Your task to perform on an android device: open app "Flipkart Online Shopping App" (install if not already installed) Image 0: 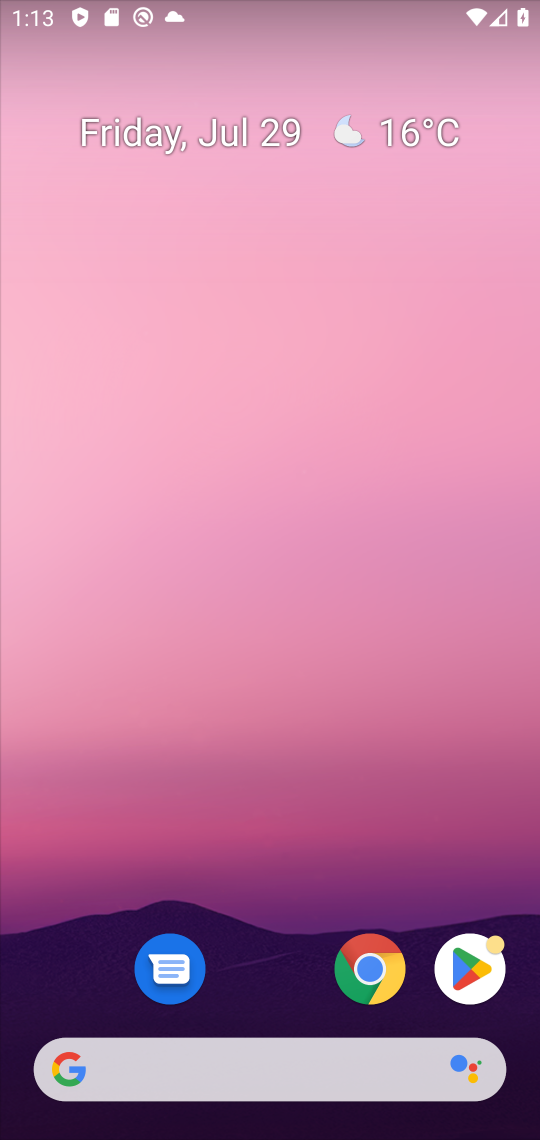
Step 0: press home button
Your task to perform on an android device: open app "Flipkart Online Shopping App" (install if not already installed) Image 1: 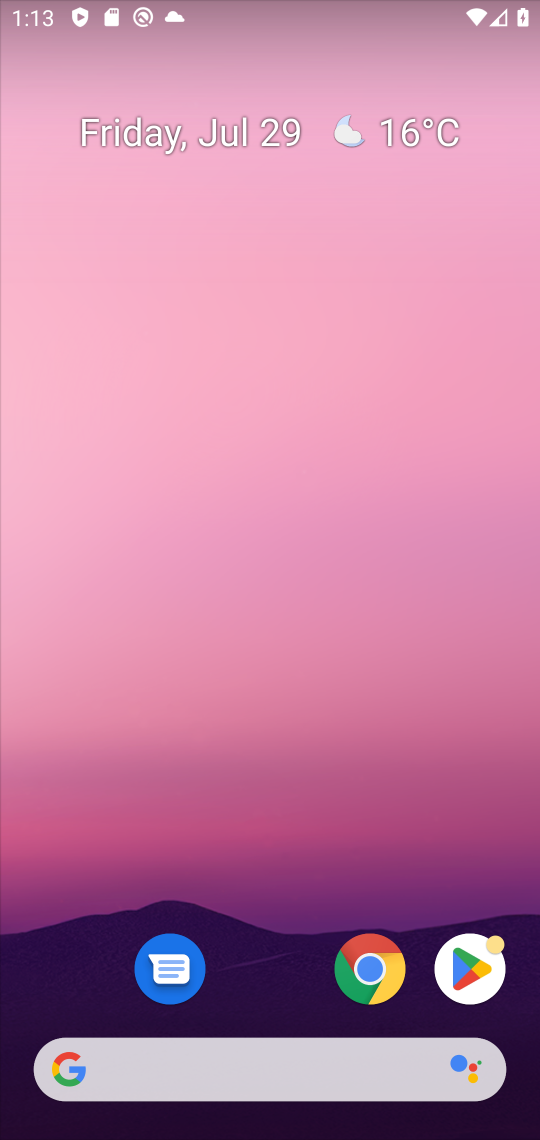
Step 1: click (495, 983)
Your task to perform on an android device: open app "Flipkart Online Shopping App" (install if not already installed) Image 2: 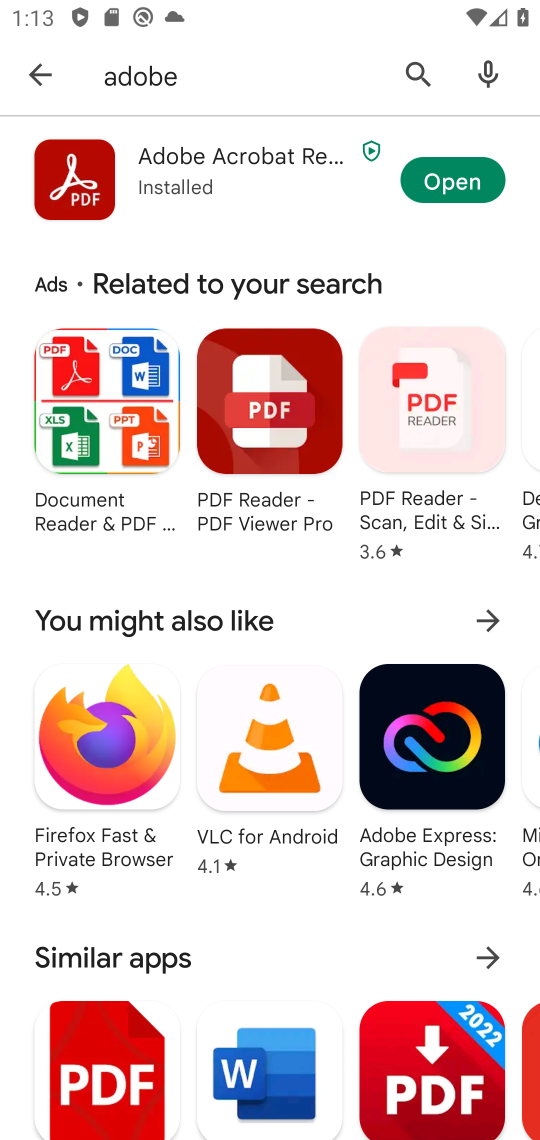
Step 2: click (406, 54)
Your task to perform on an android device: open app "Flipkart Online Shopping App" (install if not already installed) Image 3: 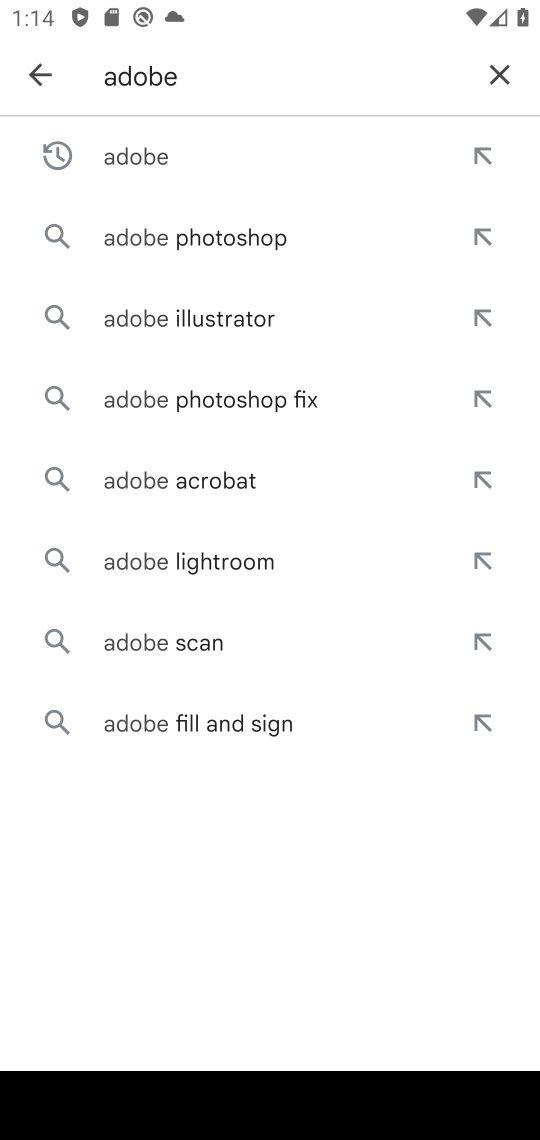
Step 3: click (495, 83)
Your task to perform on an android device: open app "Flipkart Online Shopping App" (install if not already installed) Image 4: 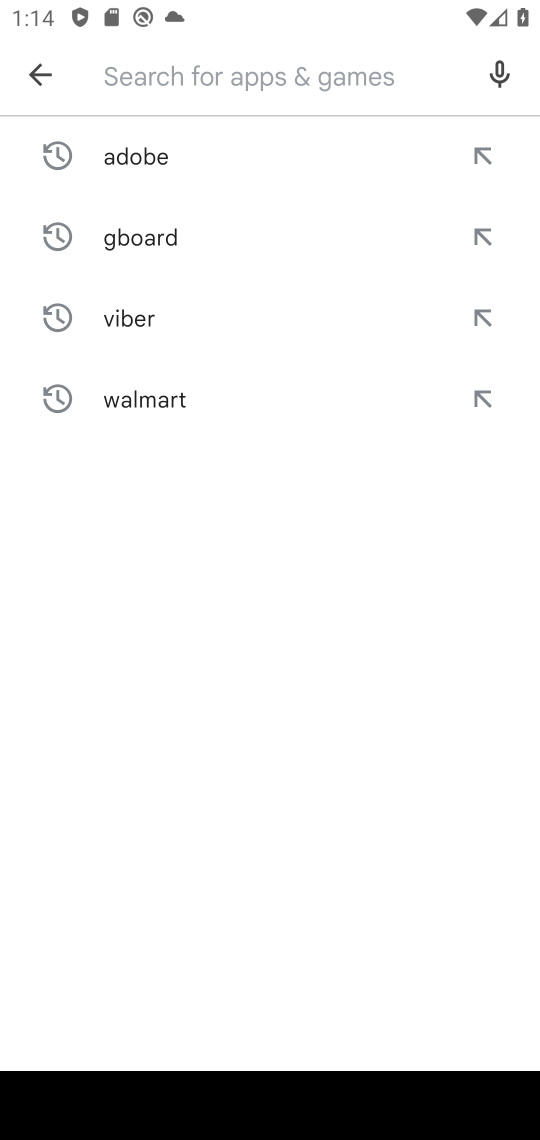
Step 4: type "flipkart"
Your task to perform on an android device: open app "Flipkart Online Shopping App" (install if not already installed) Image 5: 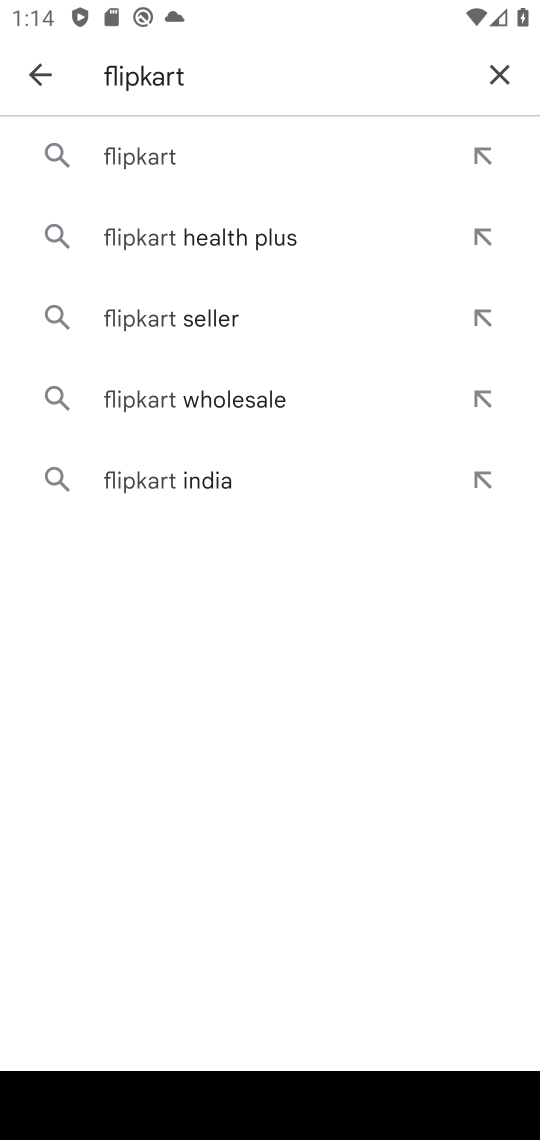
Step 5: click (191, 161)
Your task to perform on an android device: open app "Flipkart Online Shopping App" (install if not already installed) Image 6: 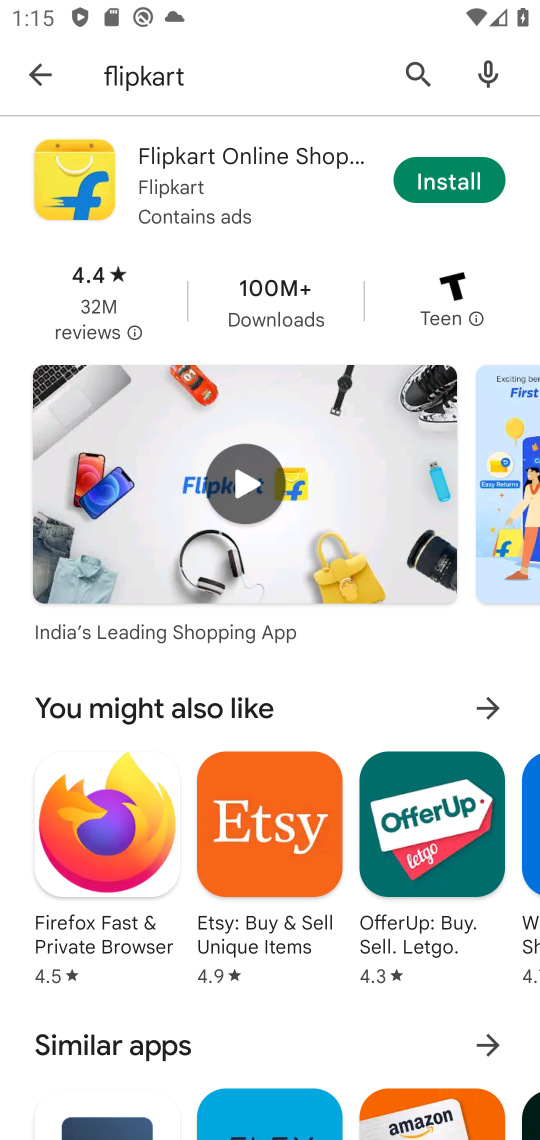
Step 6: click (432, 184)
Your task to perform on an android device: open app "Flipkart Online Shopping App" (install if not already installed) Image 7: 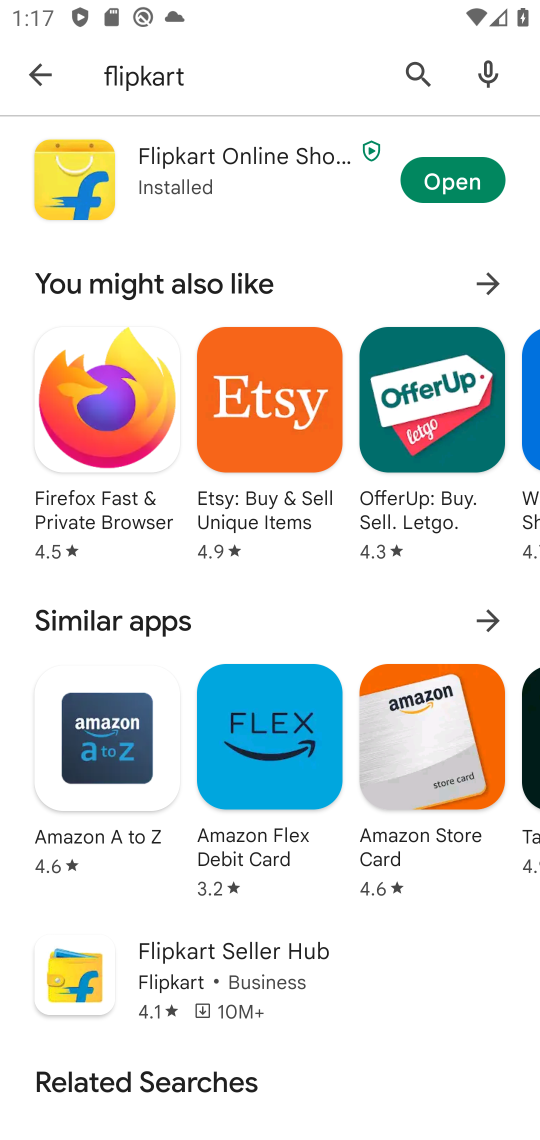
Step 7: click (481, 175)
Your task to perform on an android device: open app "Flipkart Online Shopping App" (install if not already installed) Image 8: 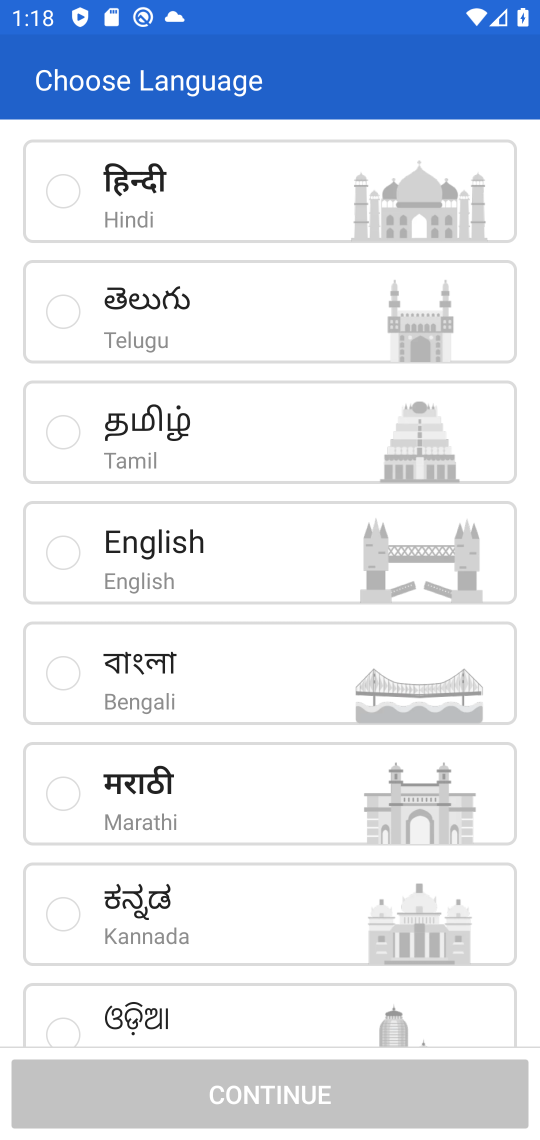
Step 8: task complete